Your task to perform on an android device: check the backup settings in the google photos Image 0: 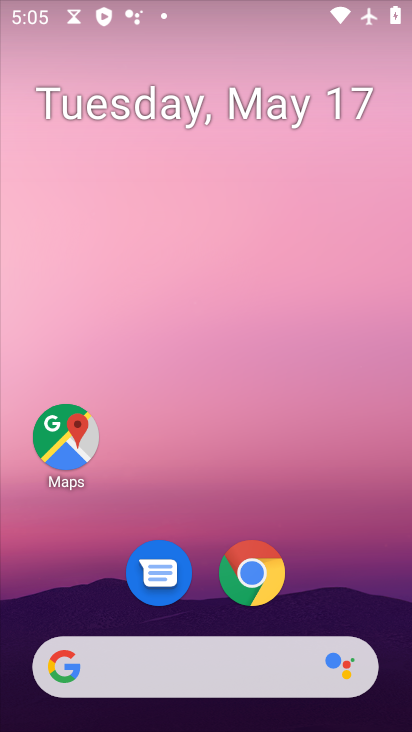
Step 0: drag from (239, 274) to (174, 128)
Your task to perform on an android device: check the backup settings in the google photos Image 1: 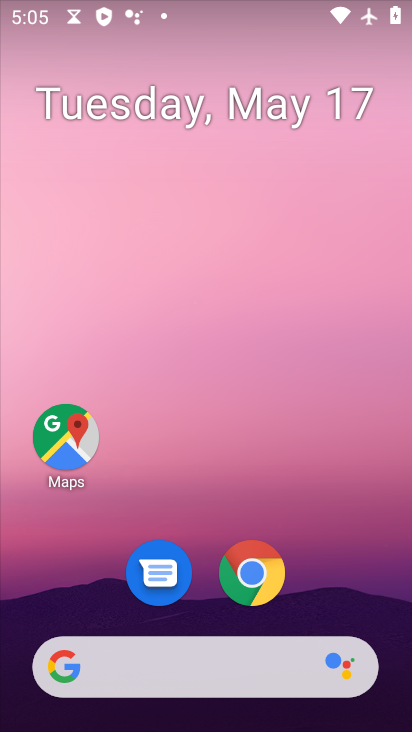
Step 1: drag from (305, 560) to (157, 2)
Your task to perform on an android device: check the backup settings in the google photos Image 2: 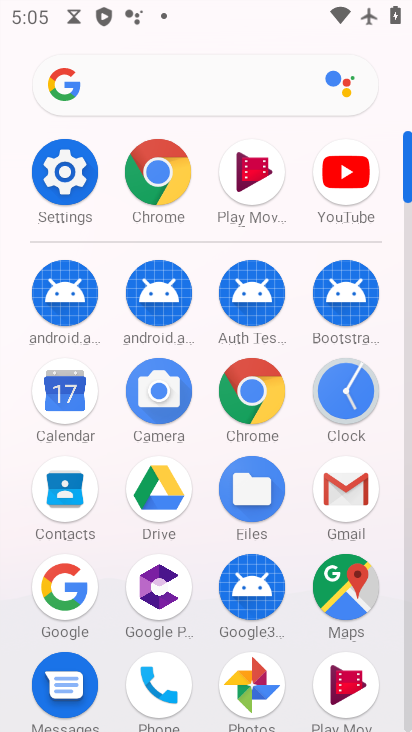
Step 2: click (254, 679)
Your task to perform on an android device: check the backup settings in the google photos Image 3: 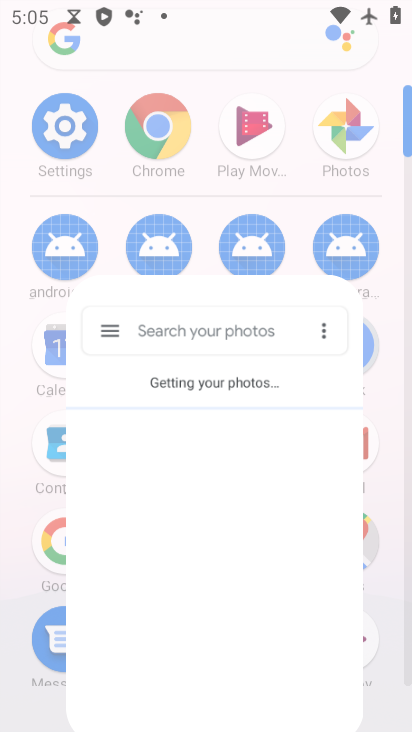
Step 3: click (256, 674)
Your task to perform on an android device: check the backup settings in the google photos Image 4: 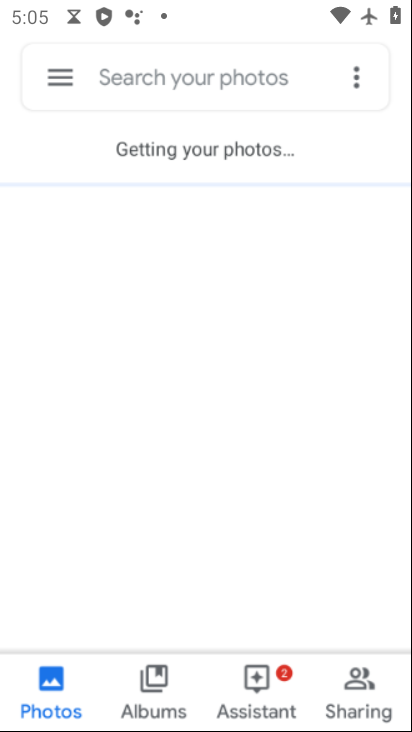
Step 4: click (257, 674)
Your task to perform on an android device: check the backup settings in the google photos Image 5: 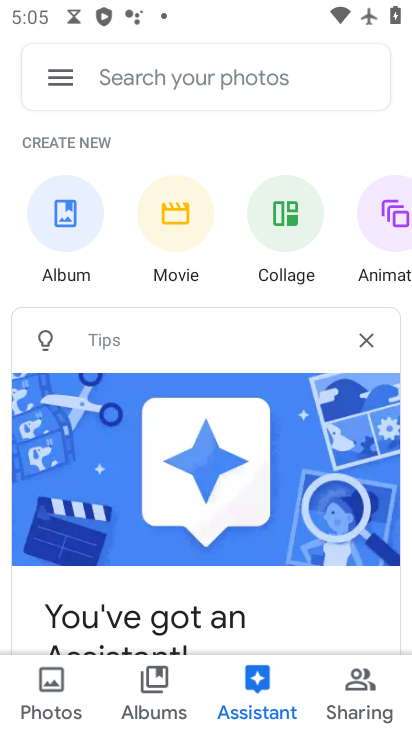
Step 5: click (59, 85)
Your task to perform on an android device: check the backup settings in the google photos Image 6: 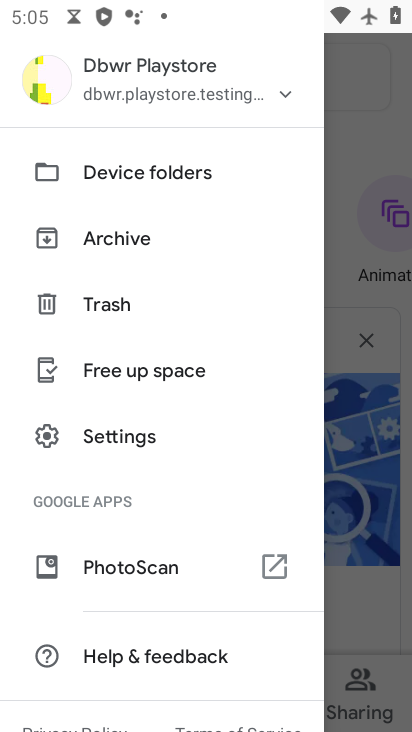
Step 6: drag from (145, 539) to (127, 236)
Your task to perform on an android device: check the backup settings in the google photos Image 7: 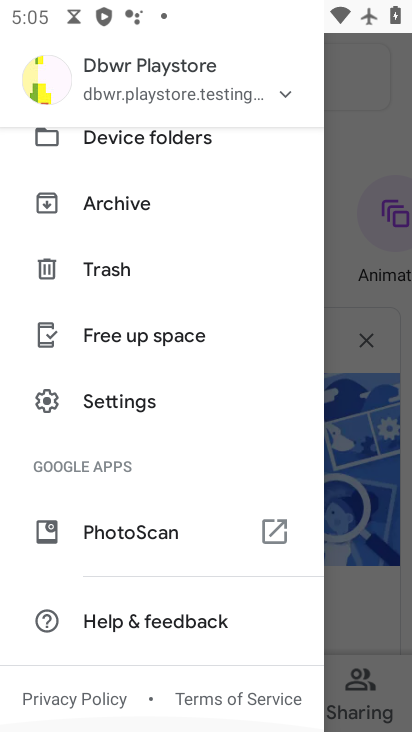
Step 7: drag from (173, 457) to (166, 192)
Your task to perform on an android device: check the backup settings in the google photos Image 8: 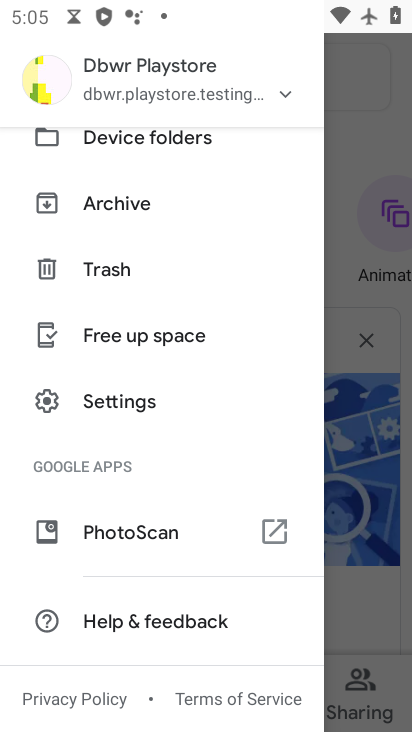
Step 8: click (337, 307)
Your task to perform on an android device: check the backup settings in the google photos Image 9: 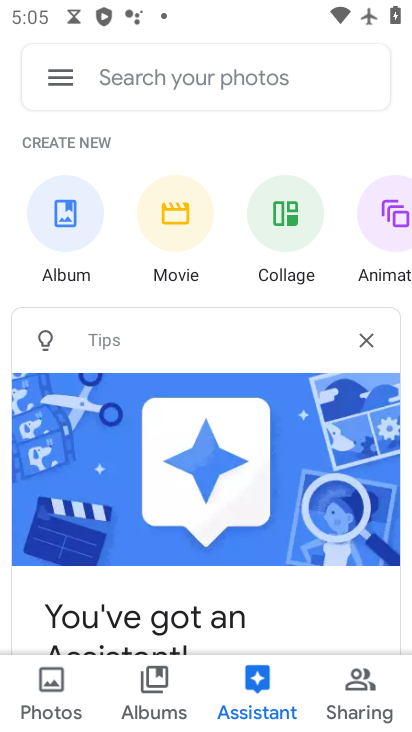
Step 9: task complete